Your task to perform on an android device: Show me the alarms in the clock app Image 0: 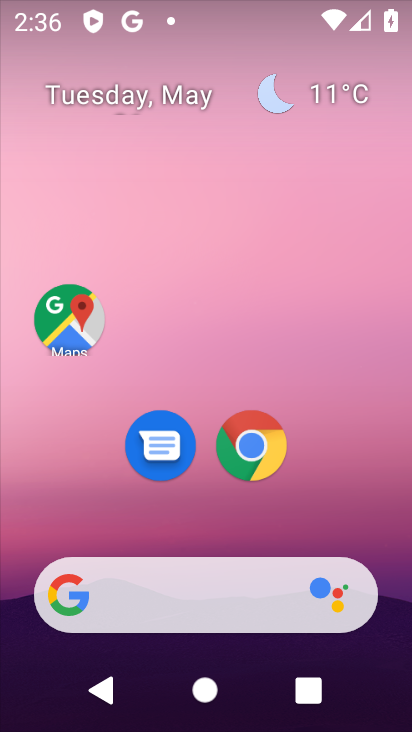
Step 0: drag from (241, 535) to (217, 162)
Your task to perform on an android device: Show me the alarms in the clock app Image 1: 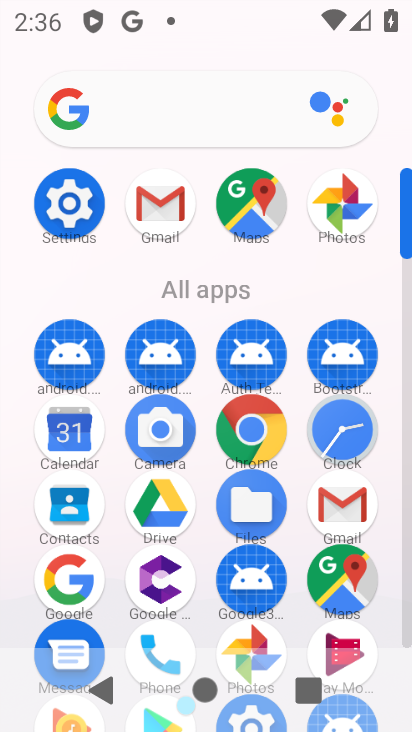
Step 1: click (343, 443)
Your task to perform on an android device: Show me the alarms in the clock app Image 2: 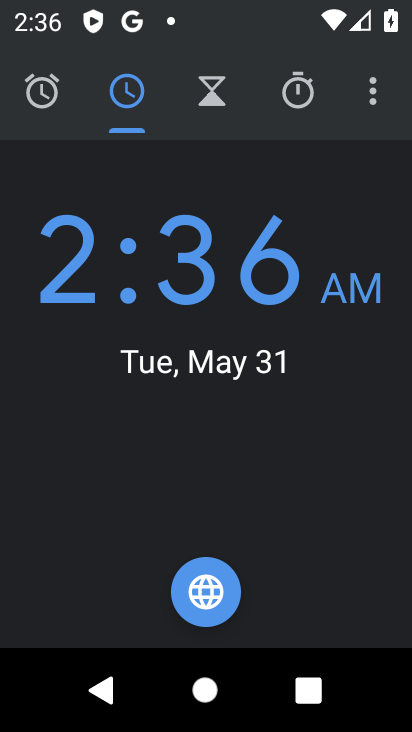
Step 2: click (53, 91)
Your task to perform on an android device: Show me the alarms in the clock app Image 3: 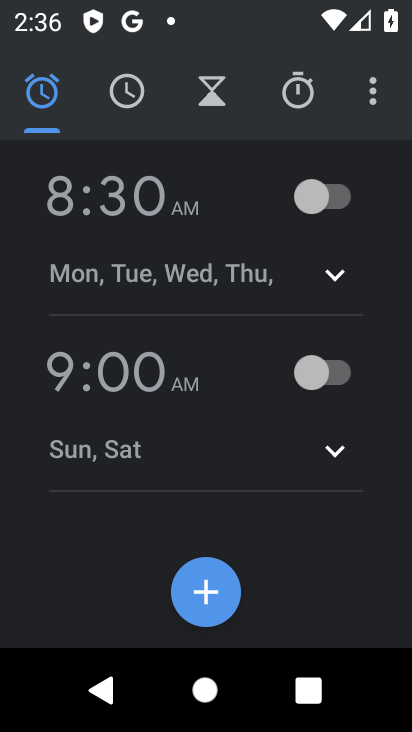
Step 3: task complete